Your task to perform on an android device: toggle javascript in the chrome app Image 0: 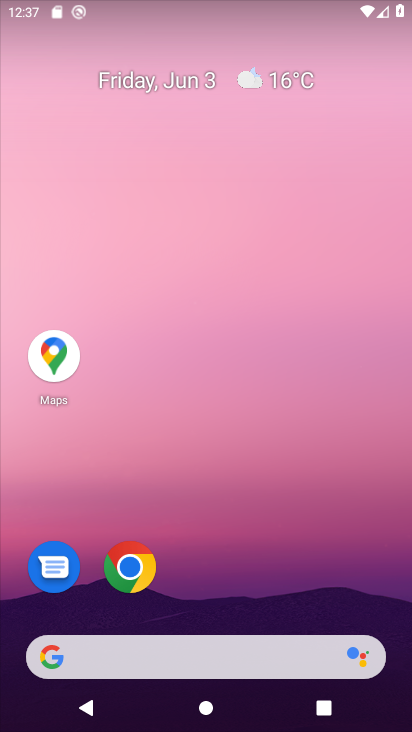
Step 0: click (138, 575)
Your task to perform on an android device: toggle javascript in the chrome app Image 1: 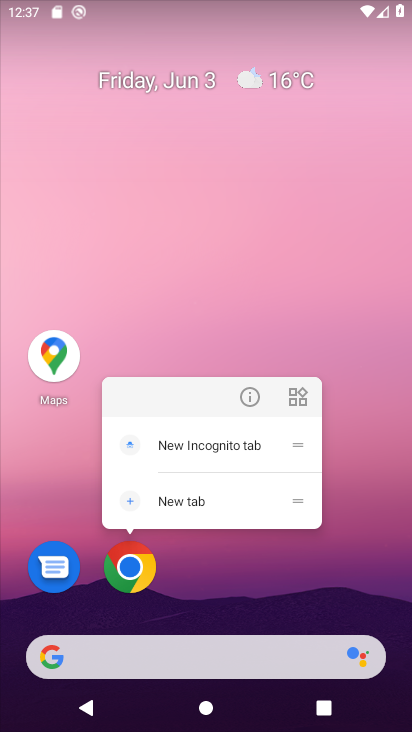
Step 1: click (138, 575)
Your task to perform on an android device: toggle javascript in the chrome app Image 2: 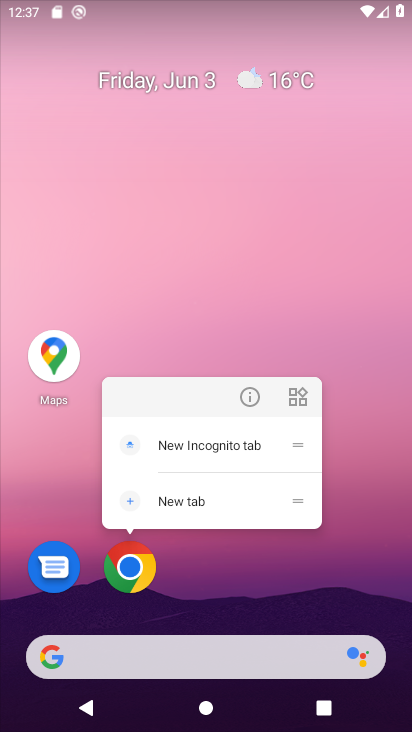
Step 2: click (137, 576)
Your task to perform on an android device: toggle javascript in the chrome app Image 3: 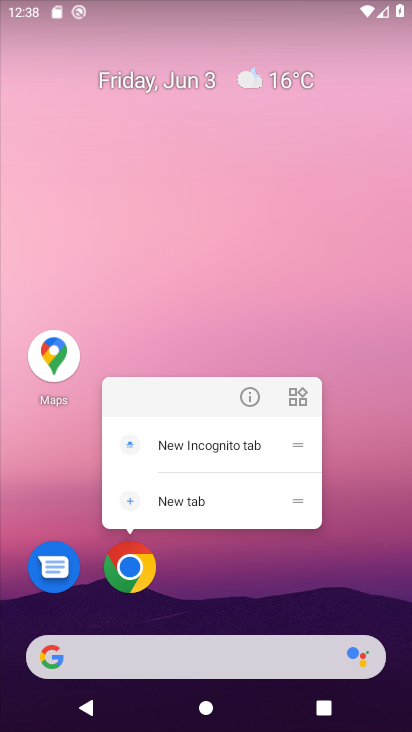
Step 3: click (137, 576)
Your task to perform on an android device: toggle javascript in the chrome app Image 4: 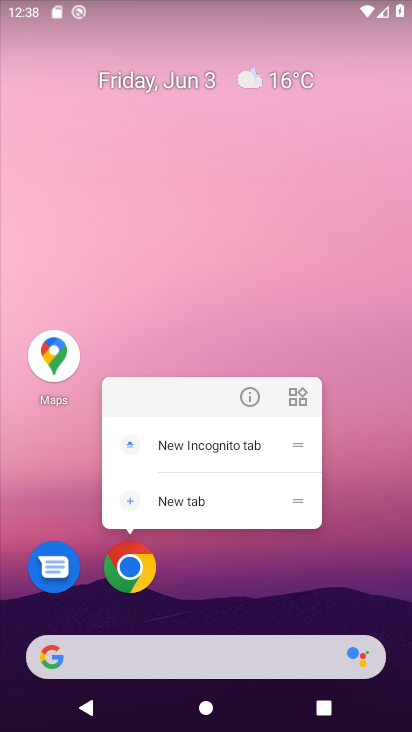
Step 4: click (137, 574)
Your task to perform on an android device: toggle javascript in the chrome app Image 5: 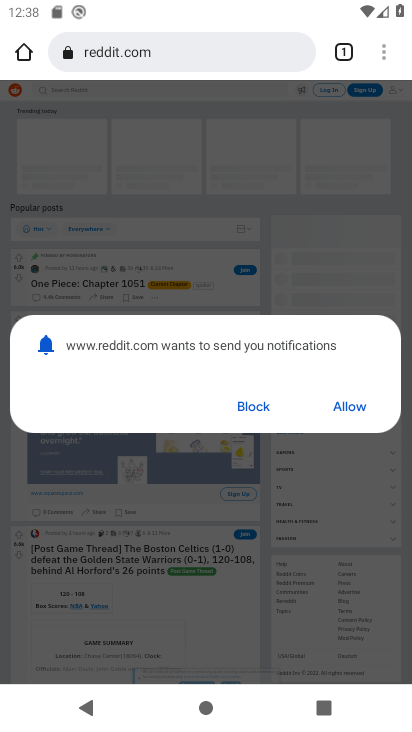
Step 5: click (339, 404)
Your task to perform on an android device: toggle javascript in the chrome app Image 6: 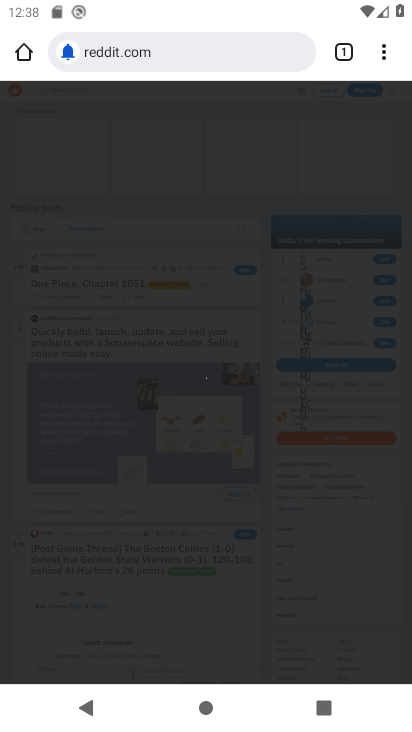
Step 6: click (382, 48)
Your task to perform on an android device: toggle javascript in the chrome app Image 7: 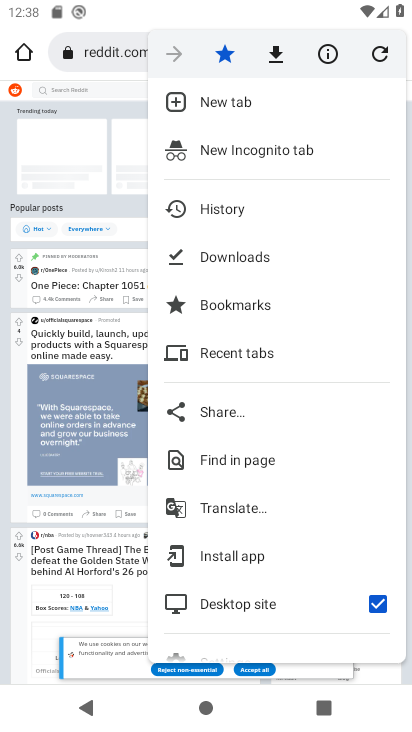
Step 7: drag from (229, 492) to (229, 277)
Your task to perform on an android device: toggle javascript in the chrome app Image 8: 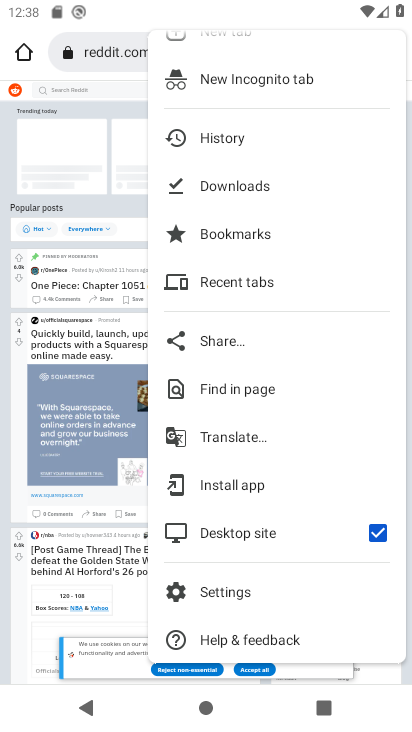
Step 8: click (220, 590)
Your task to perform on an android device: toggle javascript in the chrome app Image 9: 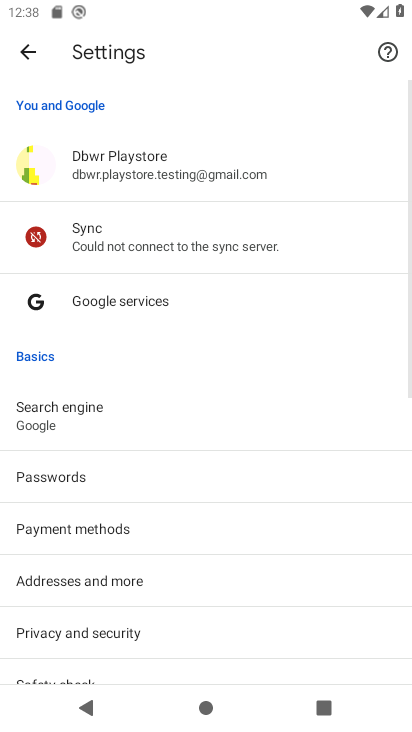
Step 9: drag from (220, 587) to (250, 256)
Your task to perform on an android device: toggle javascript in the chrome app Image 10: 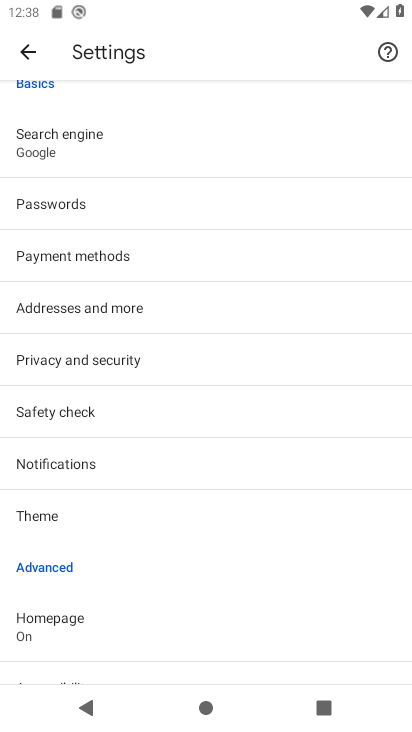
Step 10: drag from (173, 589) to (208, 299)
Your task to perform on an android device: toggle javascript in the chrome app Image 11: 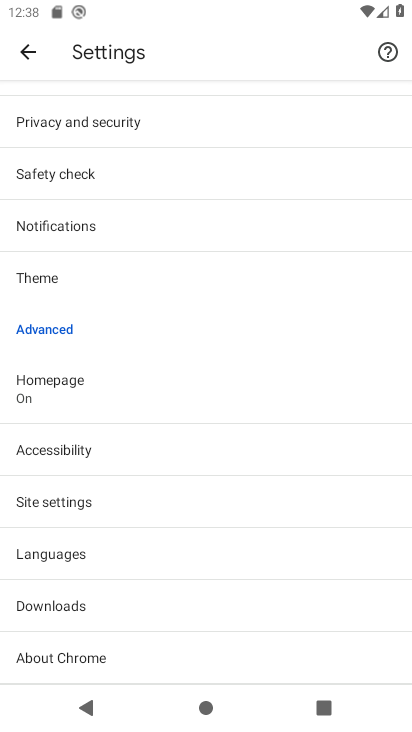
Step 11: click (89, 502)
Your task to perform on an android device: toggle javascript in the chrome app Image 12: 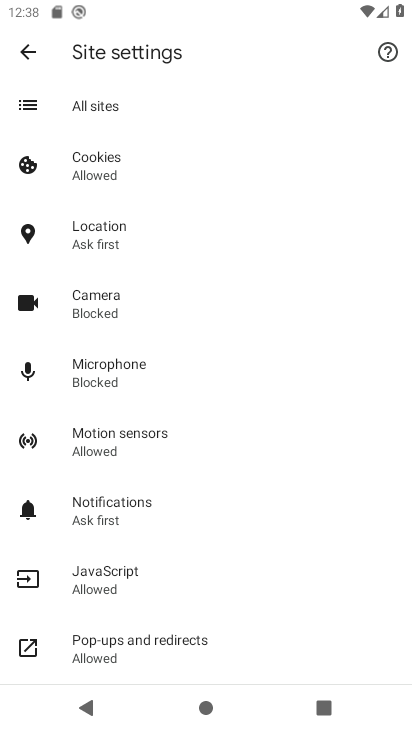
Step 12: click (145, 584)
Your task to perform on an android device: toggle javascript in the chrome app Image 13: 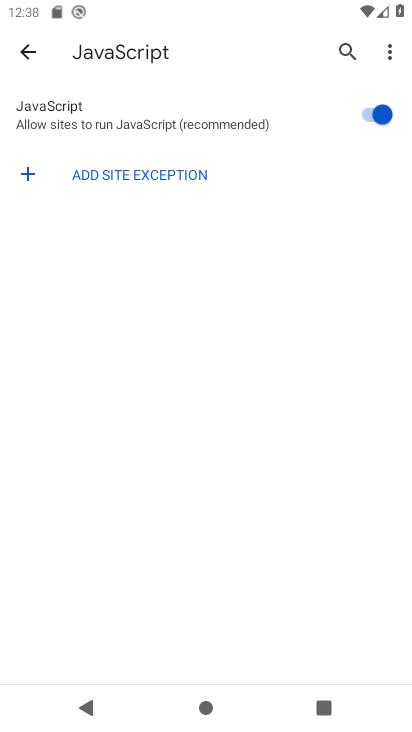
Step 13: click (371, 116)
Your task to perform on an android device: toggle javascript in the chrome app Image 14: 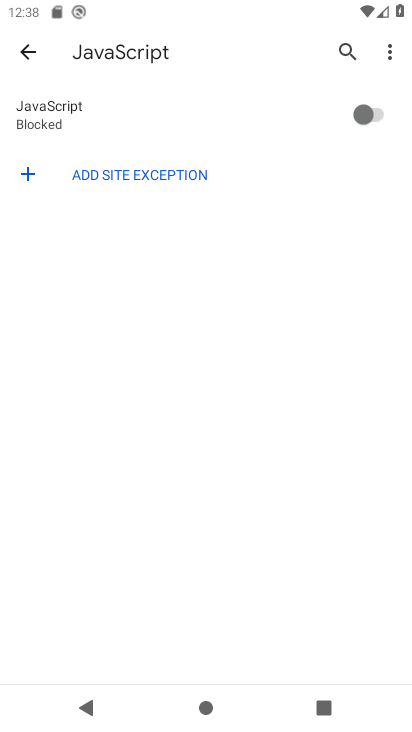
Step 14: task complete